Your task to perform on an android device: clear history in the chrome app Image 0: 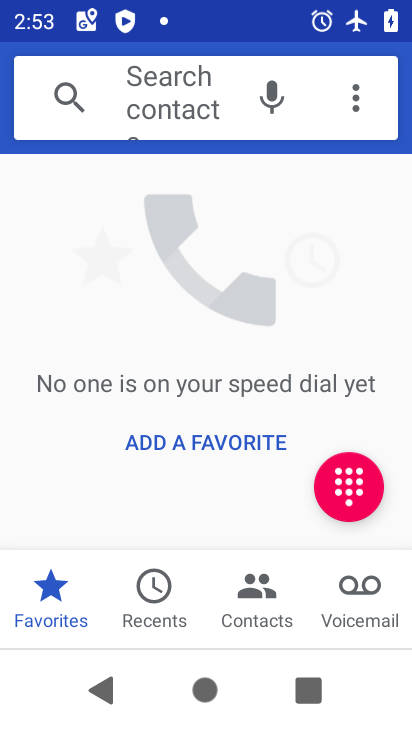
Step 0: press home button
Your task to perform on an android device: clear history in the chrome app Image 1: 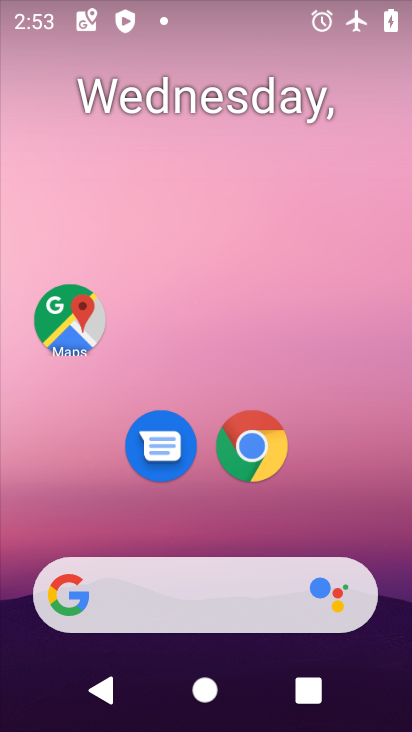
Step 1: click (264, 467)
Your task to perform on an android device: clear history in the chrome app Image 2: 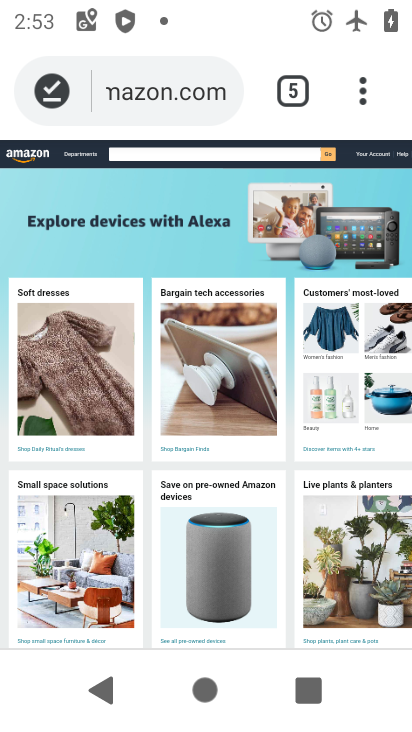
Step 2: drag from (359, 97) to (115, 502)
Your task to perform on an android device: clear history in the chrome app Image 3: 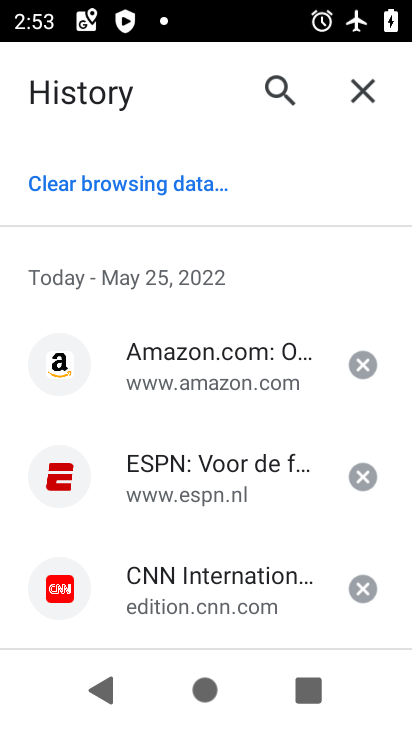
Step 3: click (84, 187)
Your task to perform on an android device: clear history in the chrome app Image 4: 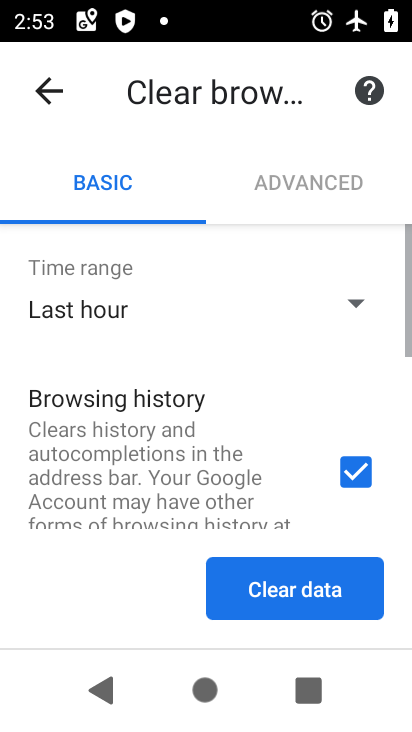
Step 4: drag from (211, 498) to (265, 200)
Your task to perform on an android device: clear history in the chrome app Image 5: 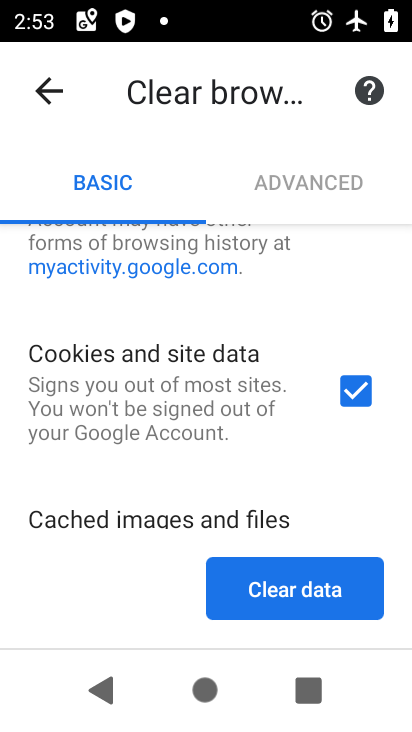
Step 5: click (262, 573)
Your task to perform on an android device: clear history in the chrome app Image 6: 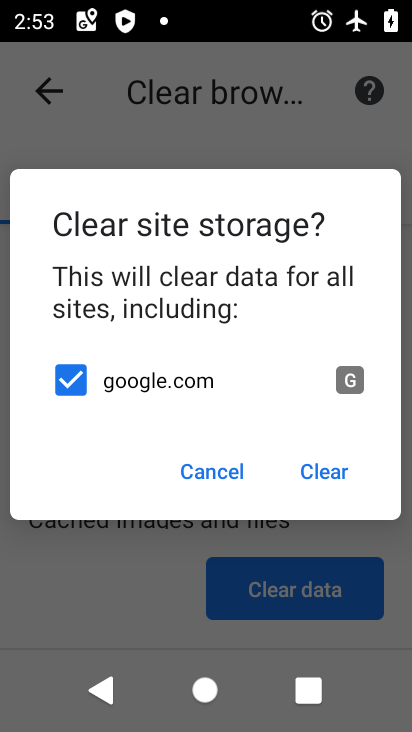
Step 6: click (323, 474)
Your task to perform on an android device: clear history in the chrome app Image 7: 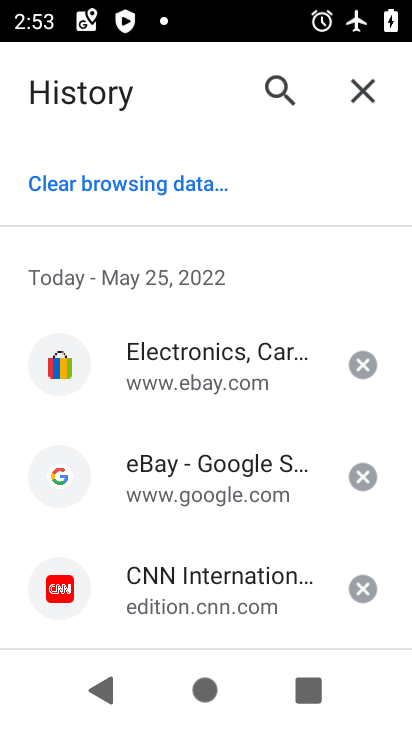
Step 7: task complete